Your task to perform on an android device: Go to ESPN.com Image 0: 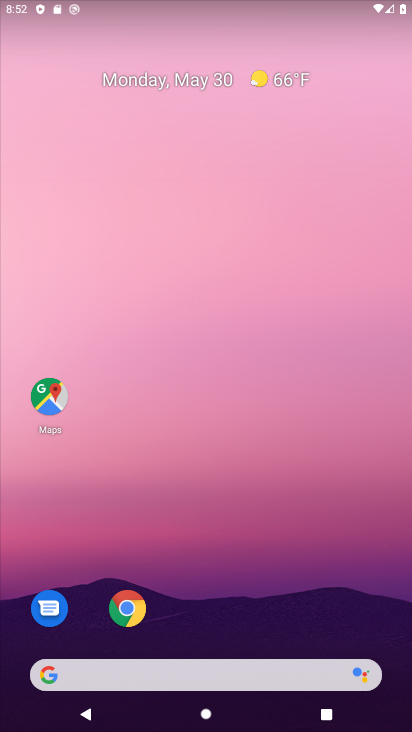
Step 0: click (126, 607)
Your task to perform on an android device: Go to ESPN.com Image 1: 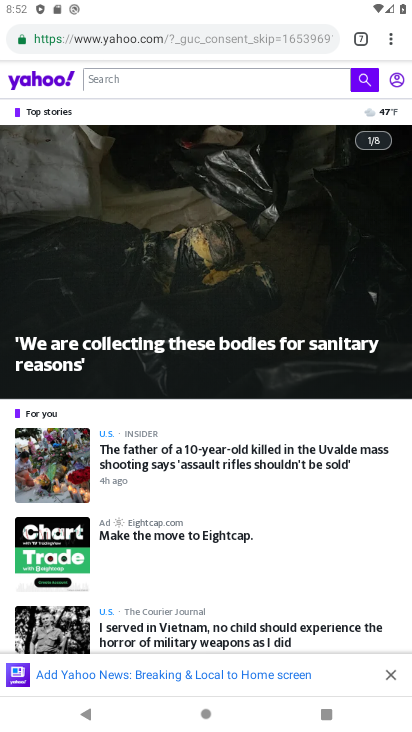
Step 1: click (392, 42)
Your task to perform on an android device: Go to ESPN.com Image 2: 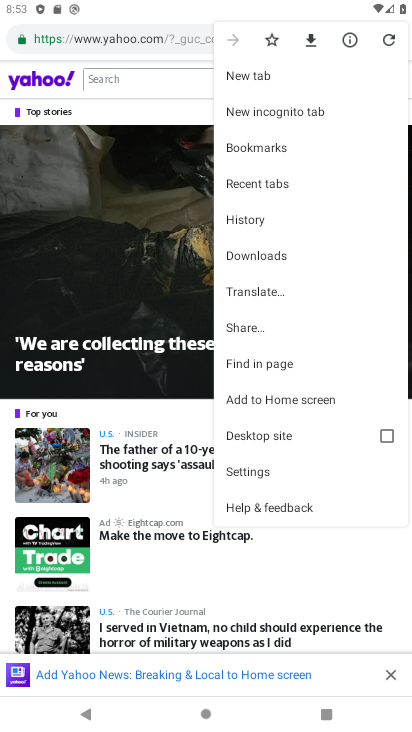
Step 2: click (258, 74)
Your task to perform on an android device: Go to ESPN.com Image 3: 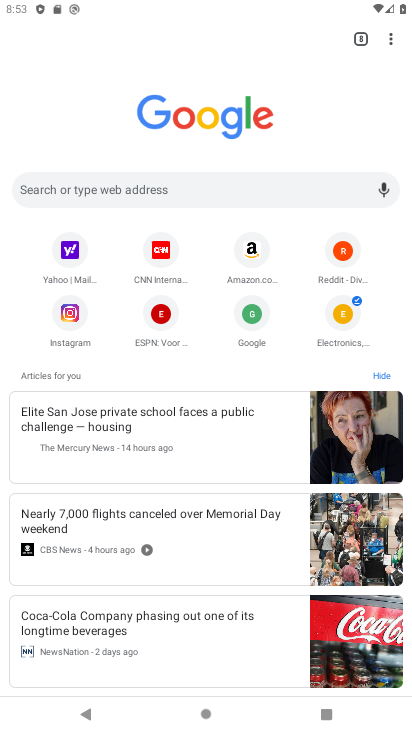
Step 3: click (161, 318)
Your task to perform on an android device: Go to ESPN.com Image 4: 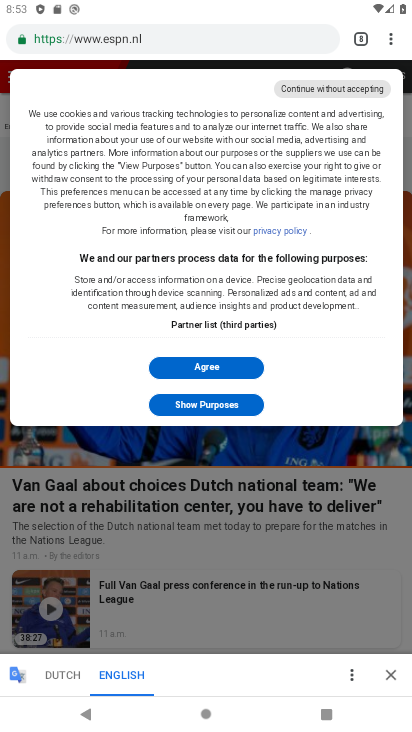
Step 4: click (221, 368)
Your task to perform on an android device: Go to ESPN.com Image 5: 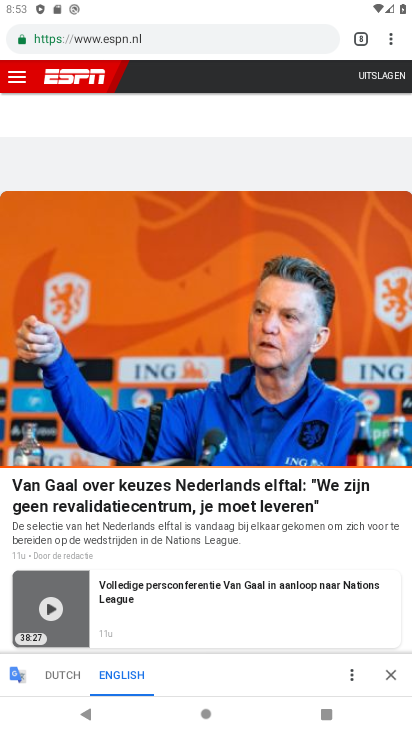
Step 5: task complete